Your task to perform on an android device: Go to display settings Image 0: 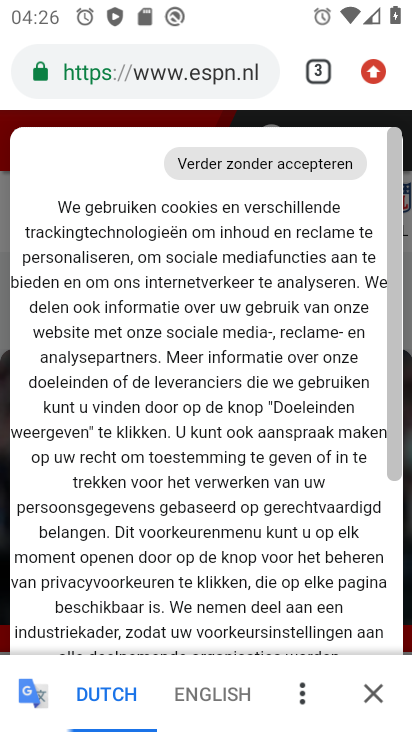
Step 0: press home button
Your task to perform on an android device: Go to display settings Image 1: 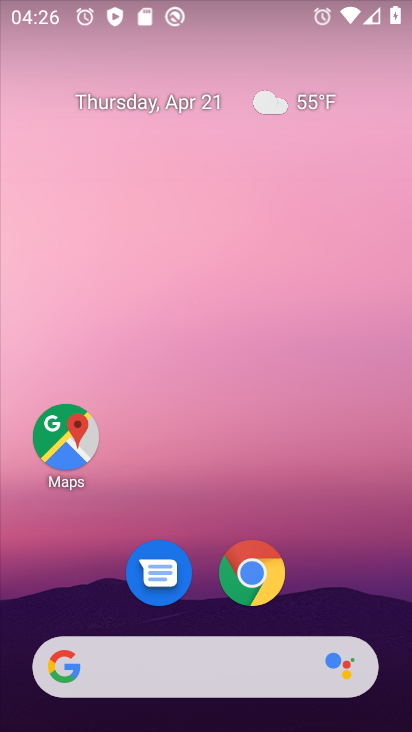
Step 1: drag from (385, 616) to (245, 101)
Your task to perform on an android device: Go to display settings Image 2: 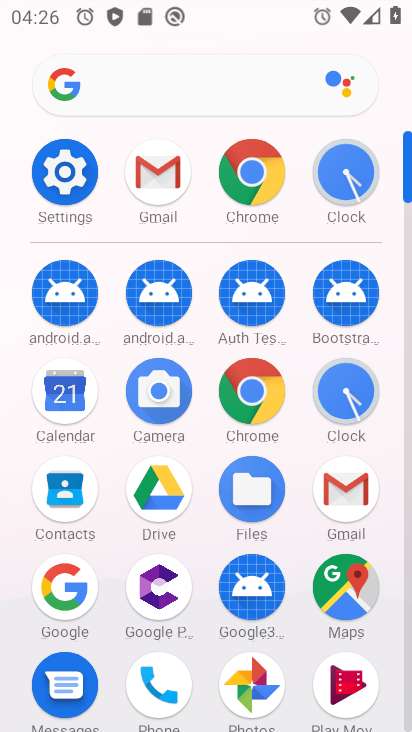
Step 2: click (407, 704)
Your task to perform on an android device: Go to display settings Image 3: 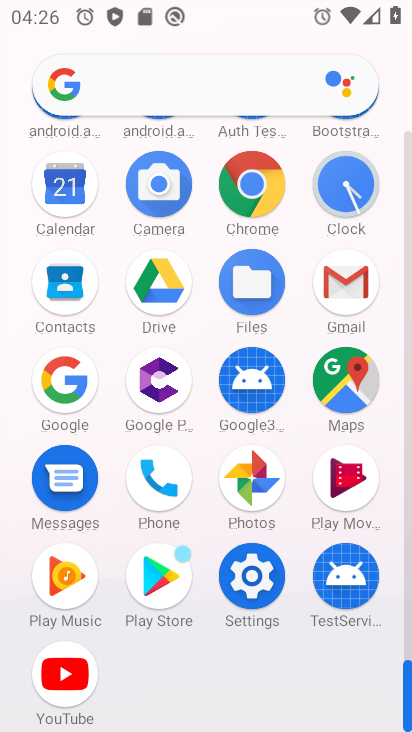
Step 3: click (252, 573)
Your task to perform on an android device: Go to display settings Image 4: 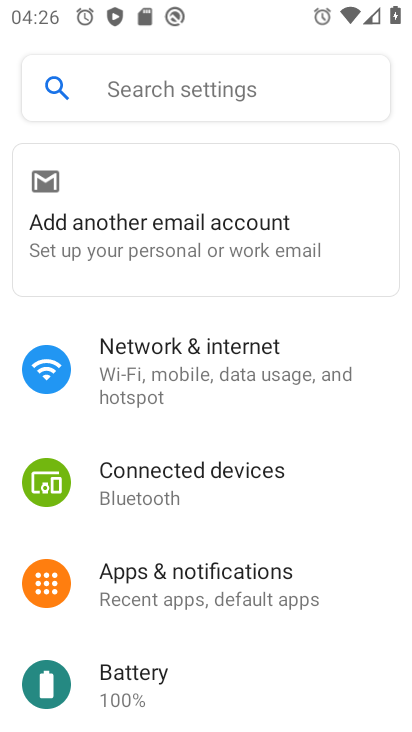
Step 4: drag from (343, 569) to (349, 338)
Your task to perform on an android device: Go to display settings Image 5: 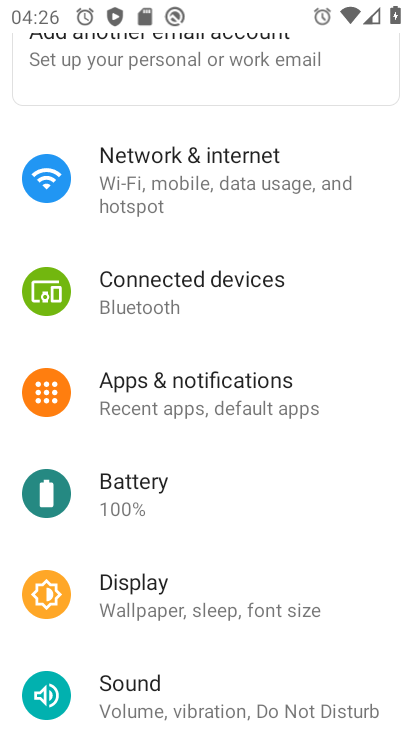
Step 5: click (139, 591)
Your task to perform on an android device: Go to display settings Image 6: 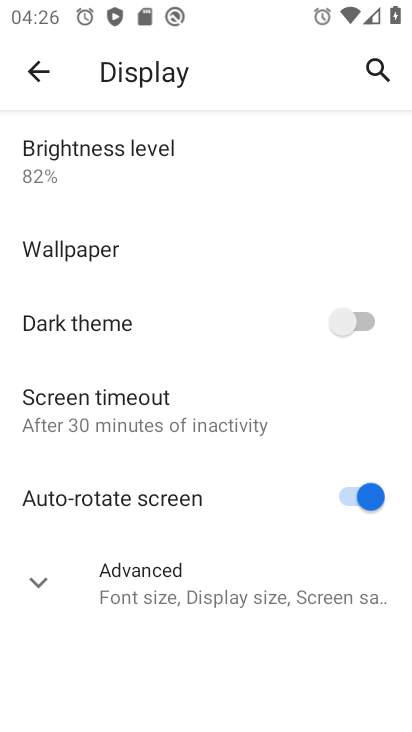
Step 6: click (32, 582)
Your task to perform on an android device: Go to display settings Image 7: 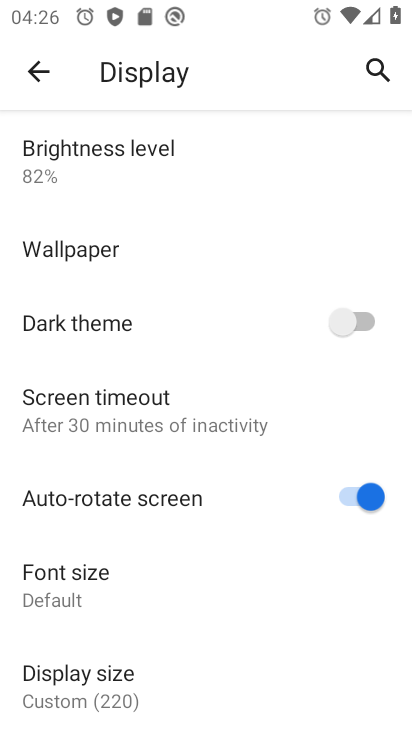
Step 7: task complete